Your task to perform on an android device: open the mobile data screen to see how much data has been used Image 0: 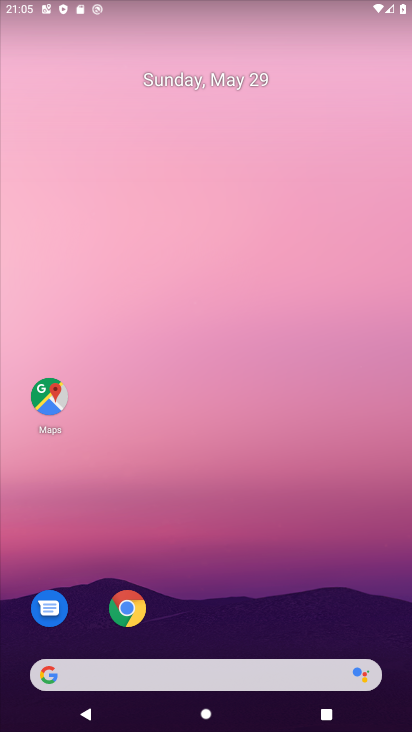
Step 0: drag from (376, 617) to (384, 258)
Your task to perform on an android device: open the mobile data screen to see how much data has been used Image 1: 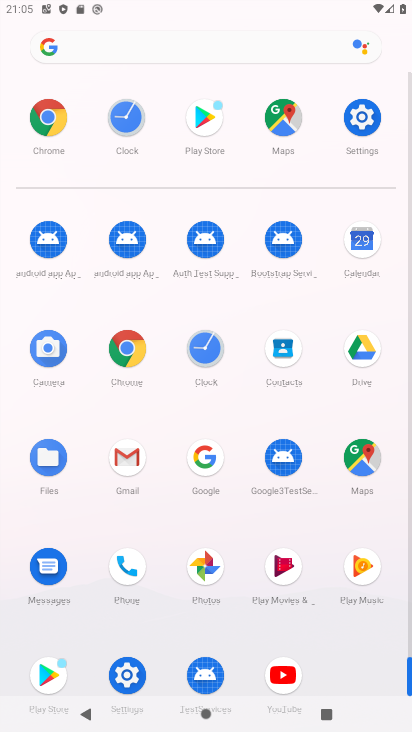
Step 1: click (363, 136)
Your task to perform on an android device: open the mobile data screen to see how much data has been used Image 2: 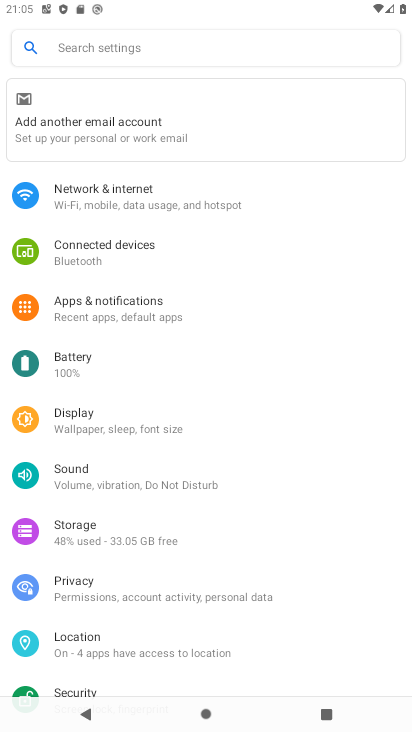
Step 2: drag from (348, 505) to (363, 432)
Your task to perform on an android device: open the mobile data screen to see how much data has been used Image 3: 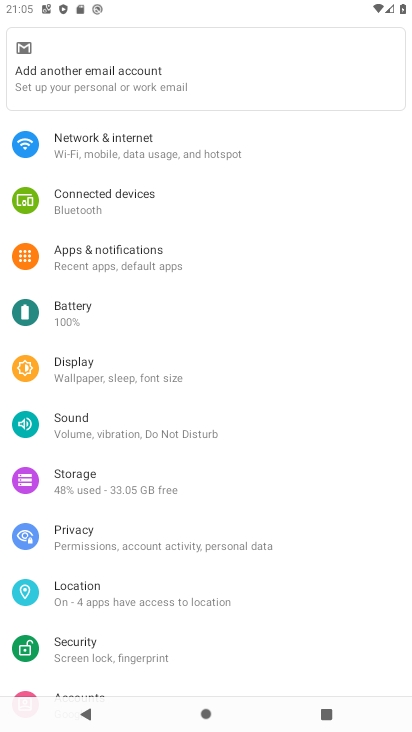
Step 3: drag from (371, 516) to (367, 432)
Your task to perform on an android device: open the mobile data screen to see how much data has been used Image 4: 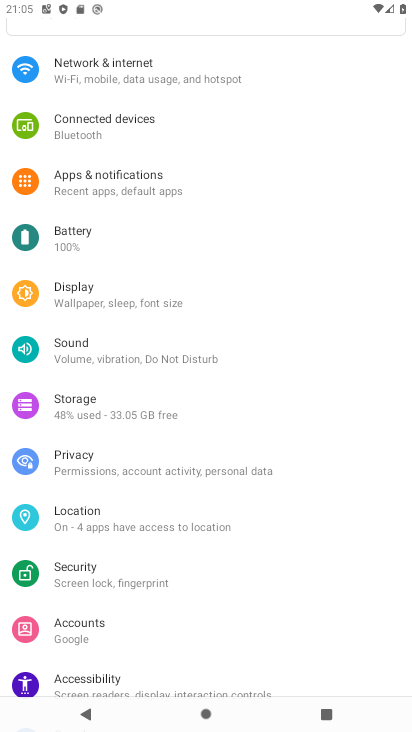
Step 4: drag from (371, 538) to (368, 460)
Your task to perform on an android device: open the mobile data screen to see how much data has been used Image 5: 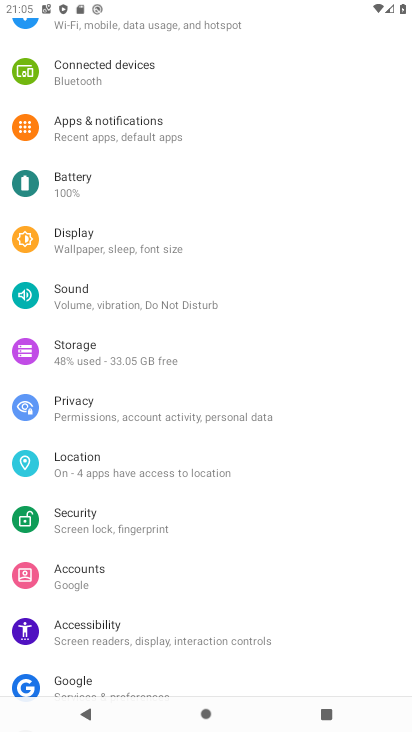
Step 5: drag from (375, 550) to (367, 459)
Your task to perform on an android device: open the mobile data screen to see how much data has been used Image 6: 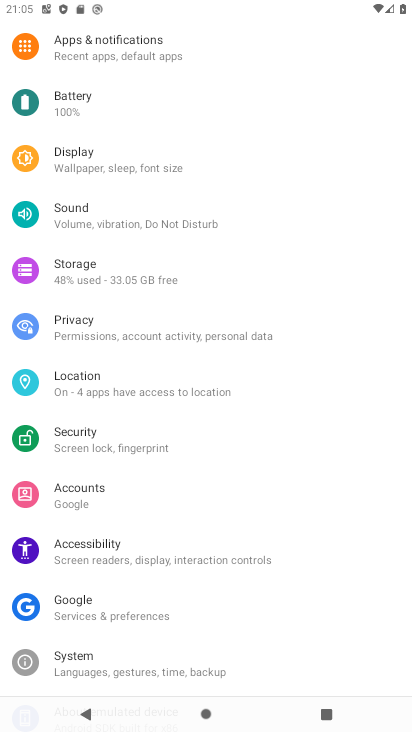
Step 6: drag from (360, 537) to (376, 444)
Your task to perform on an android device: open the mobile data screen to see how much data has been used Image 7: 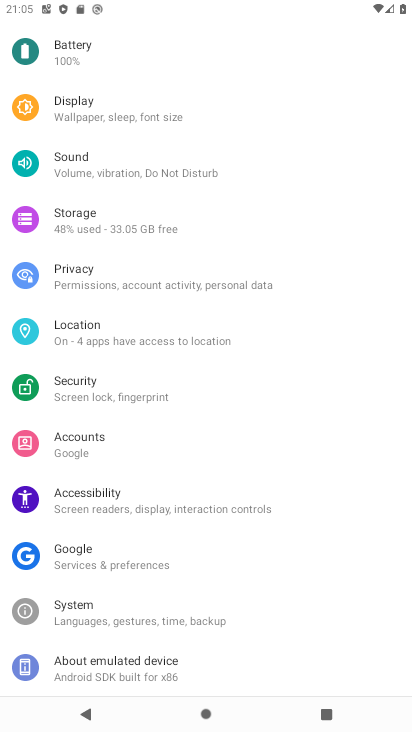
Step 7: drag from (377, 568) to (374, 423)
Your task to perform on an android device: open the mobile data screen to see how much data has been used Image 8: 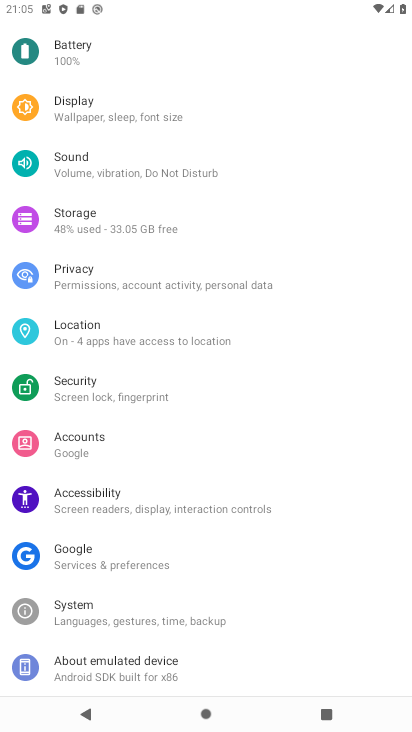
Step 8: drag from (361, 357) to (352, 424)
Your task to perform on an android device: open the mobile data screen to see how much data has been used Image 9: 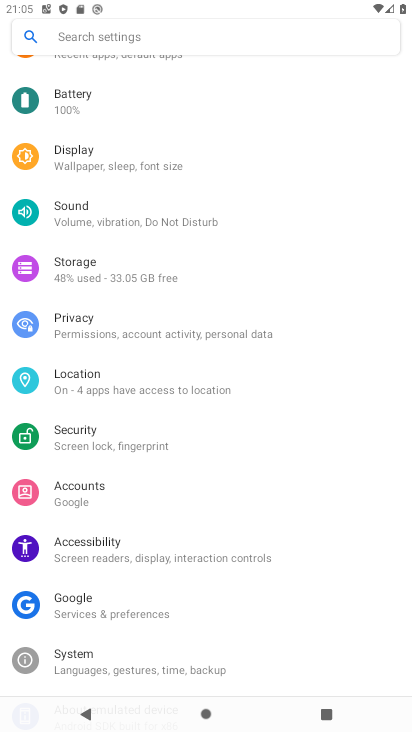
Step 9: drag from (344, 340) to (339, 408)
Your task to perform on an android device: open the mobile data screen to see how much data has been used Image 10: 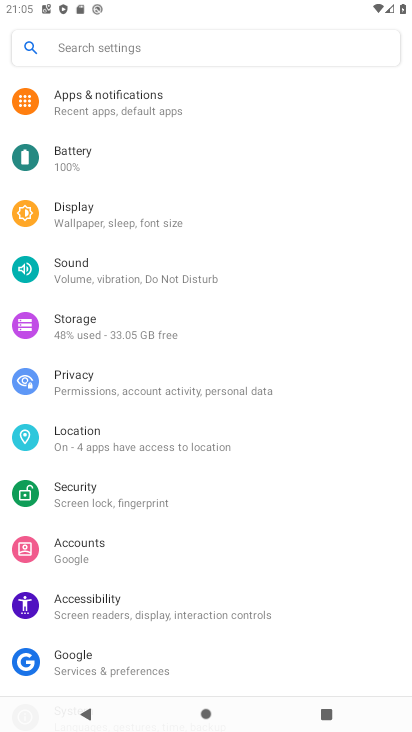
Step 10: drag from (349, 307) to (350, 379)
Your task to perform on an android device: open the mobile data screen to see how much data has been used Image 11: 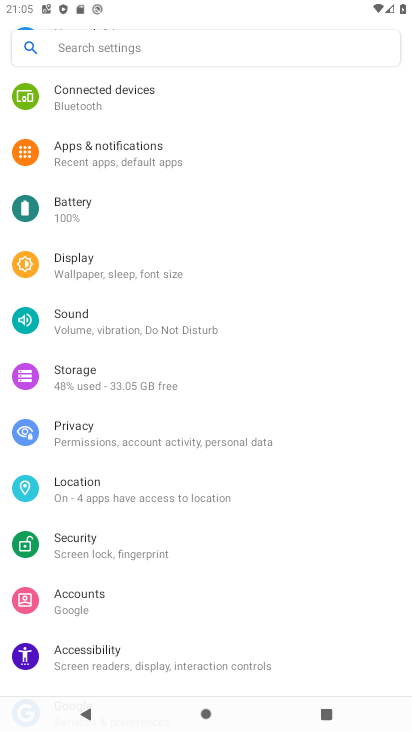
Step 11: drag from (353, 311) to (360, 376)
Your task to perform on an android device: open the mobile data screen to see how much data has been used Image 12: 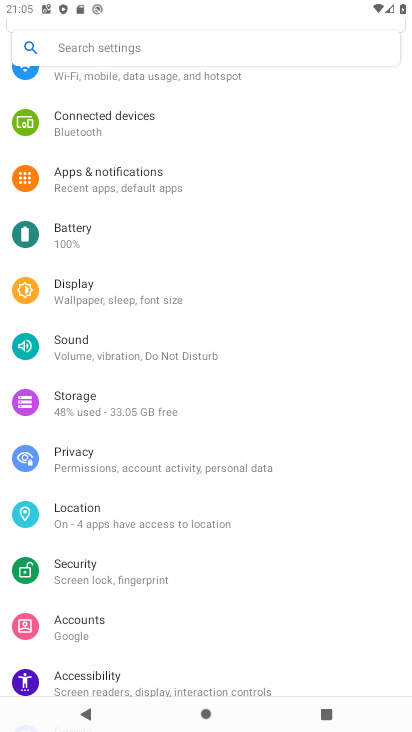
Step 12: drag from (364, 300) to (356, 425)
Your task to perform on an android device: open the mobile data screen to see how much data has been used Image 13: 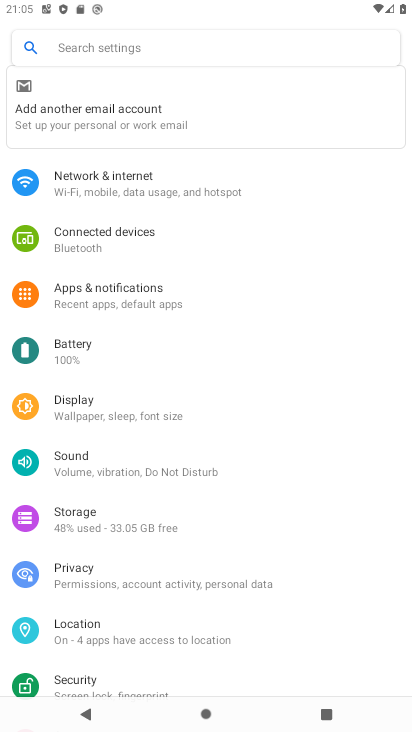
Step 13: drag from (348, 260) to (344, 368)
Your task to perform on an android device: open the mobile data screen to see how much data has been used Image 14: 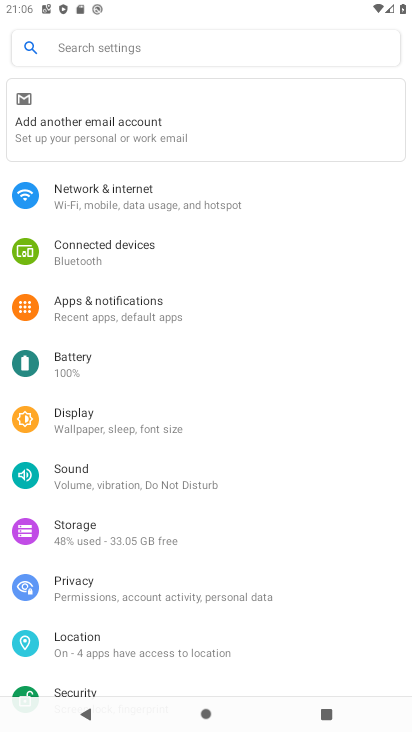
Step 14: click (270, 209)
Your task to perform on an android device: open the mobile data screen to see how much data has been used Image 15: 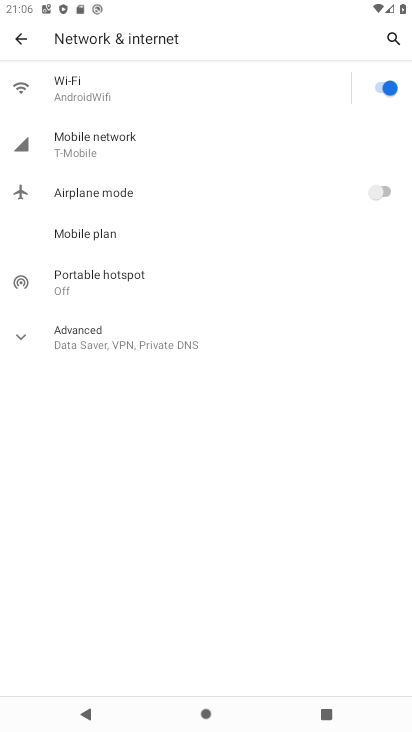
Step 15: click (124, 141)
Your task to perform on an android device: open the mobile data screen to see how much data has been used Image 16: 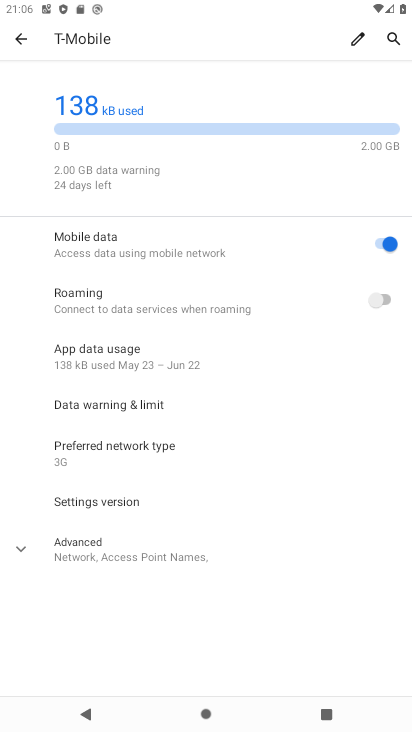
Step 16: click (167, 362)
Your task to perform on an android device: open the mobile data screen to see how much data has been used Image 17: 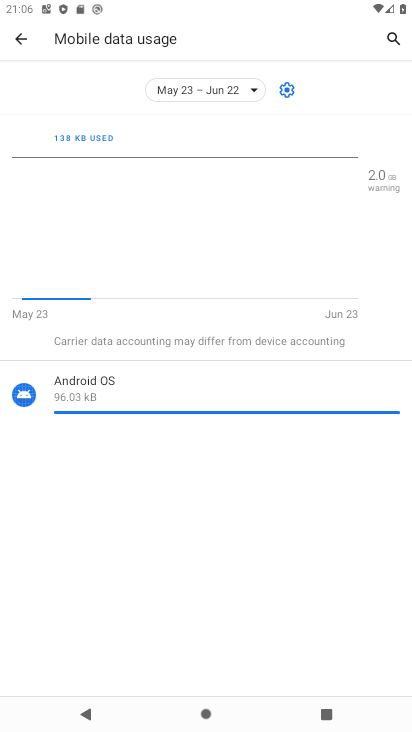
Step 17: task complete